Your task to perform on an android device: Show me popular videos on Youtube Image 0: 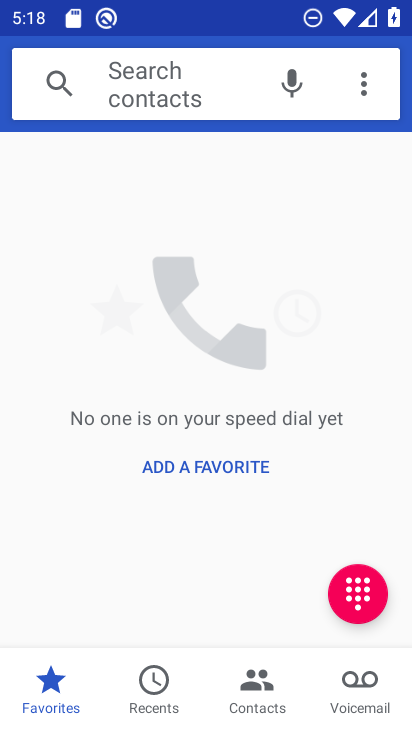
Step 0: press back button
Your task to perform on an android device: Show me popular videos on Youtube Image 1: 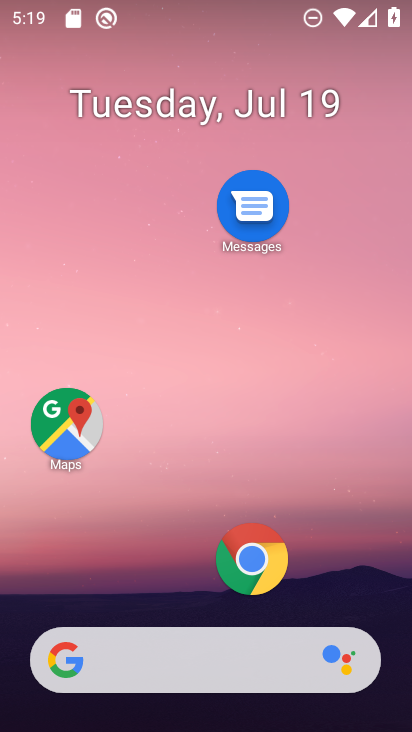
Step 1: drag from (190, 586) to (180, 1)
Your task to perform on an android device: Show me popular videos on Youtube Image 2: 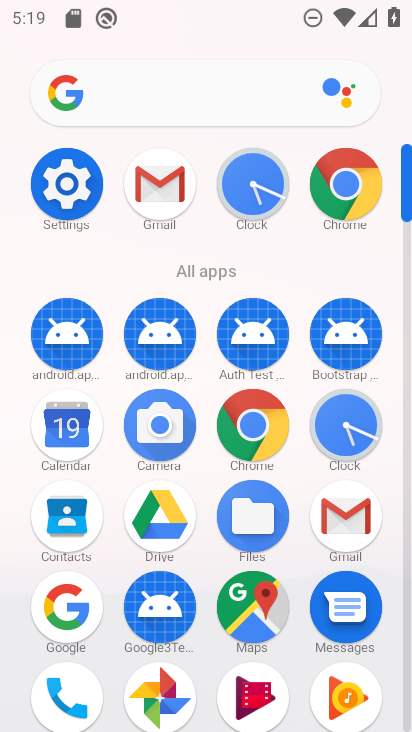
Step 2: drag from (181, 649) to (246, 51)
Your task to perform on an android device: Show me popular videos on Youtube Image 3: 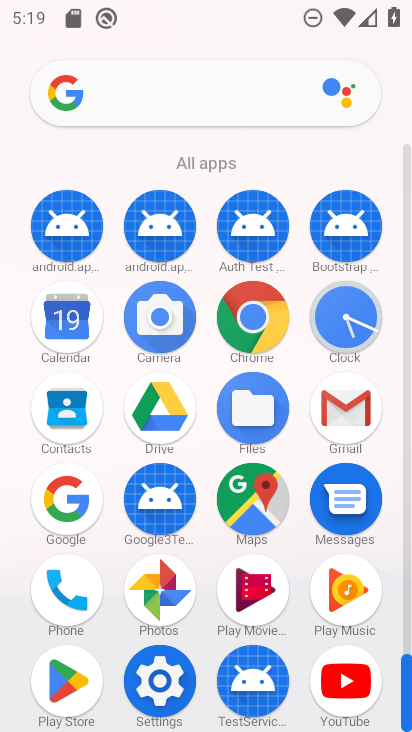
Step 3: click (343, 692)
Your task to perform on an android device: Show me popular videos on Youtube Image 4: 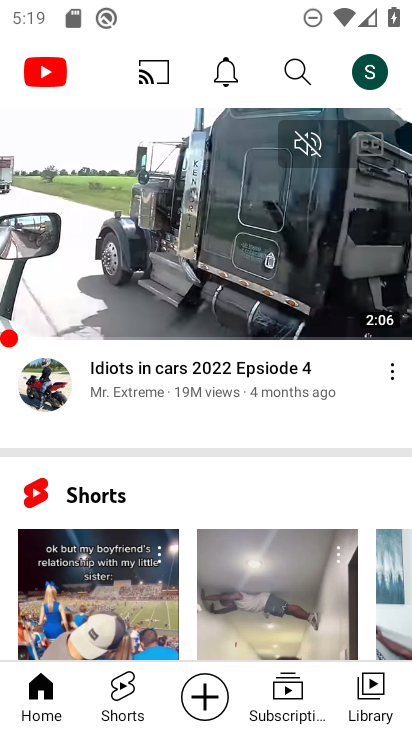
Step 4: drag from (160, 277) to (168, 654)
Your task to perform on an android device: Show me popular videos on Youtube Image 5: 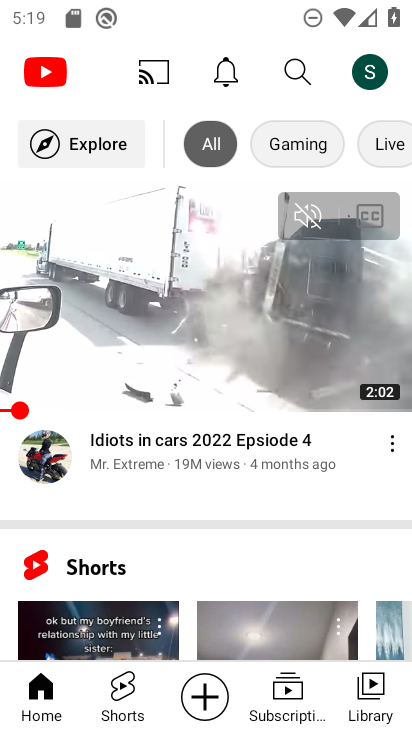
Step 5: click (72, 142)
Your task to perform on an android device: Show me popular videos on Youtube Image 6: 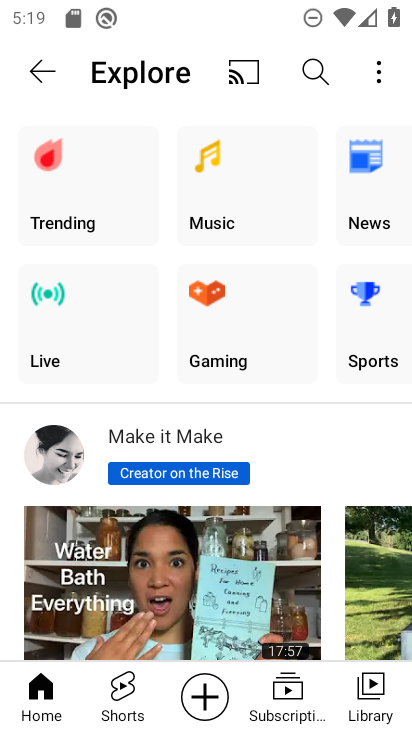
Step 6: click (67, 169)
Your task to perform on an android device: Show me popular videos on Youtube Image 7: 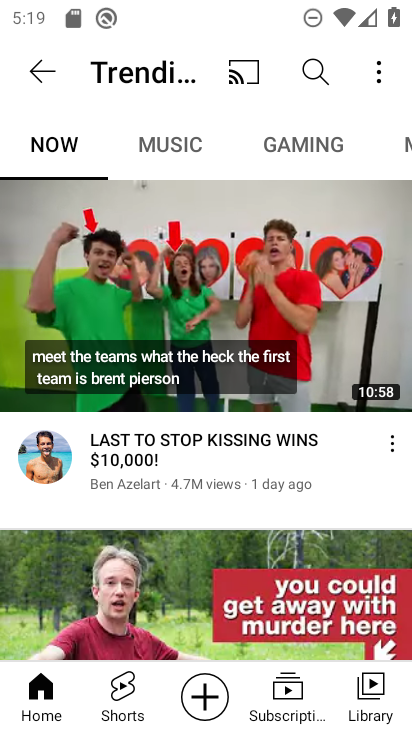
Step 7: task complete